Your task to perform on an android device: Turn on the flashlight Image 0: 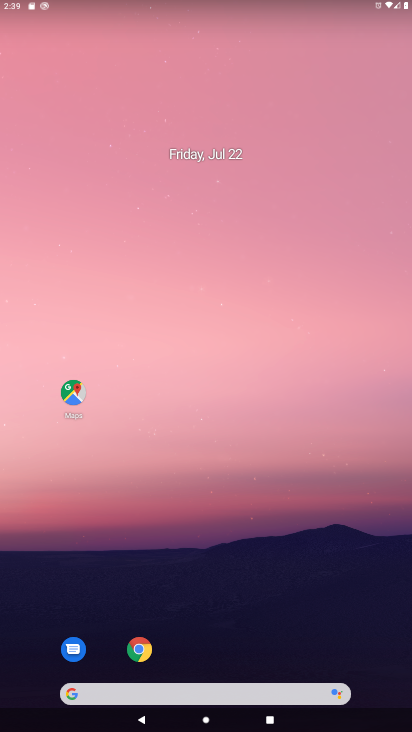
Step 0: drag from (233, 728) to (228, 145)
Your task to perform on an android device: Turn on the flashlight Image 1: 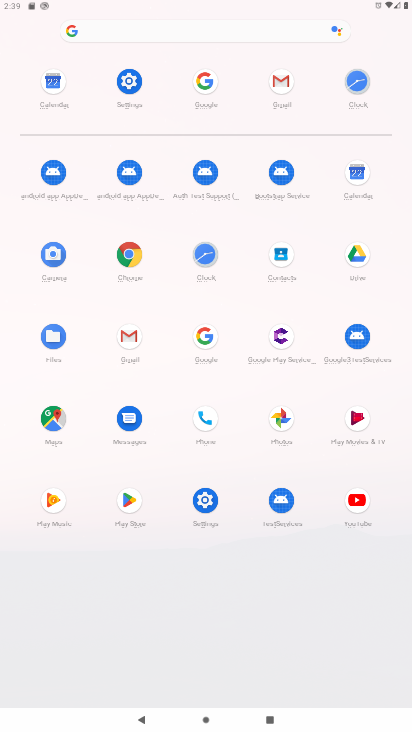
Step 1: click (133, 83)
Your task to perform on an android device: Turn on the flashlight Image 2: 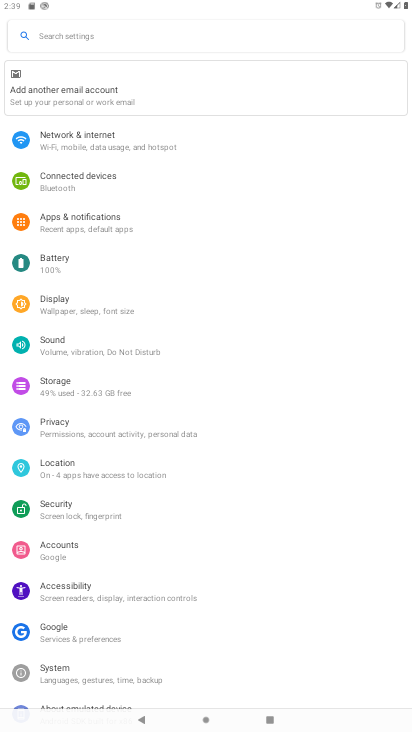
Step 2: task complete